Your task to perform on an android device: Is it going to rain this weekend? Image 0: 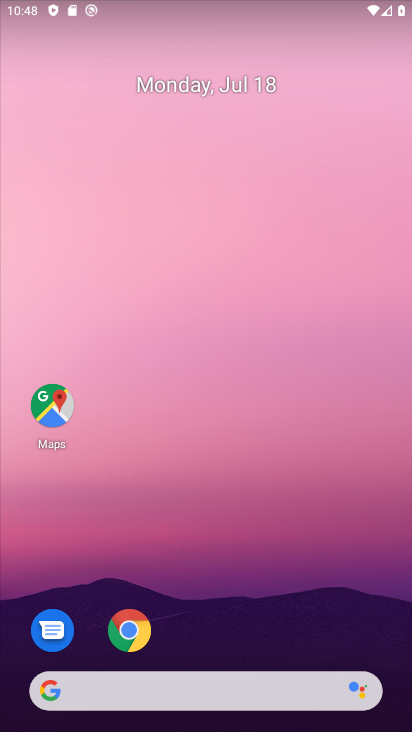
Step 0: drag from (137, 662) to (160, 304)
Your task to perform on an android device: Is it going to rain this weekend? Image 1: 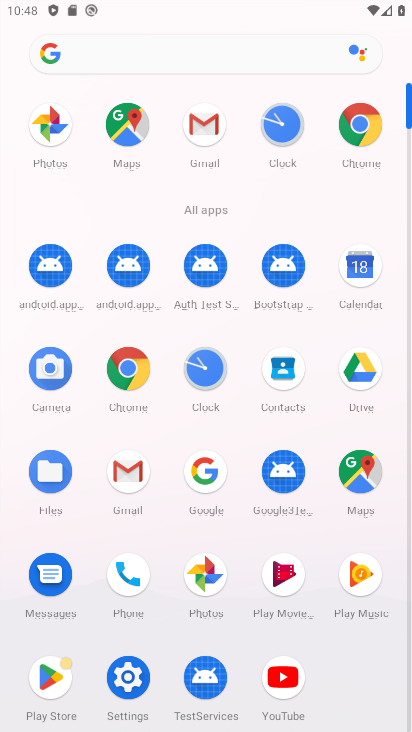
Step 1: click (207, 469)
Your task to perform on an android device: Is it going to rain this weekend? Image 2: 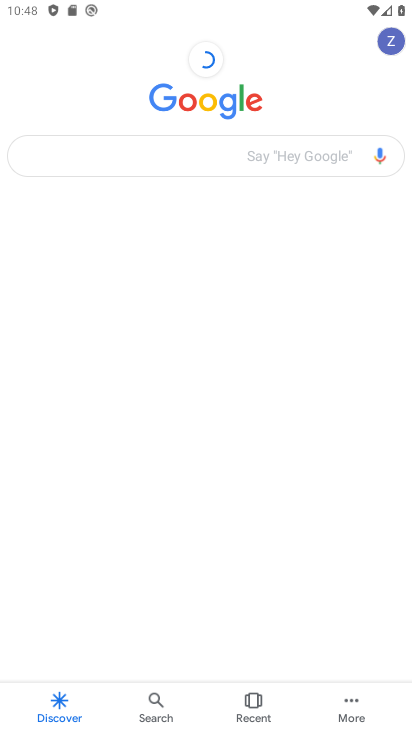
Step 2: click (127, 150)
Your task to perform on an android device: Is it going to rain this weekend? Image 3: 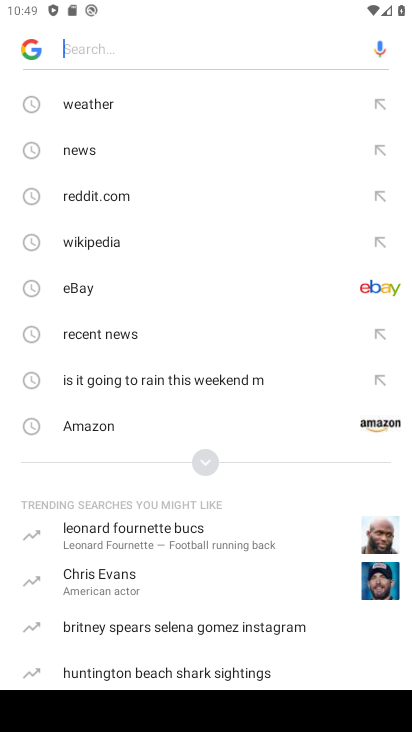
Step 3: click (201, 461)
Your task to perform on an android device: Is it going to rain this weekend? Image 4: 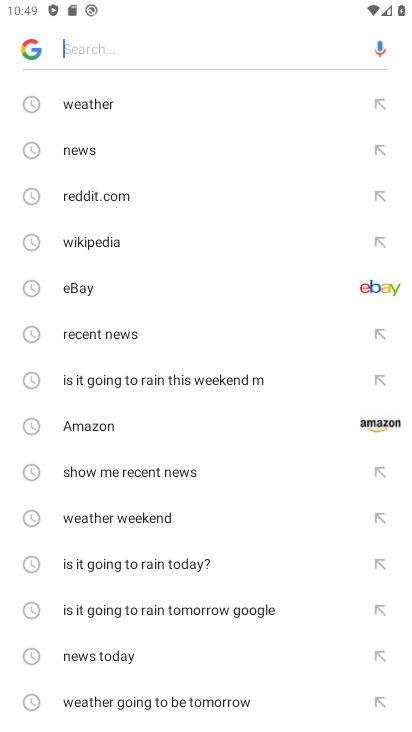
Step 4: drag from (137, 669) to (138, 391)
Your task to perform on an android device: Is it going to rain this weekend? Image 5: 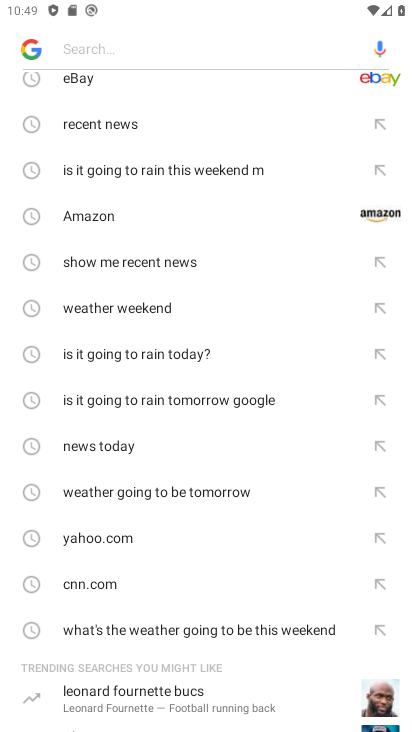
Step 5: drag from (160, 609) to (155, 290)
Your task to perform on an android device: Is it going to rain this weekend? Image 6: 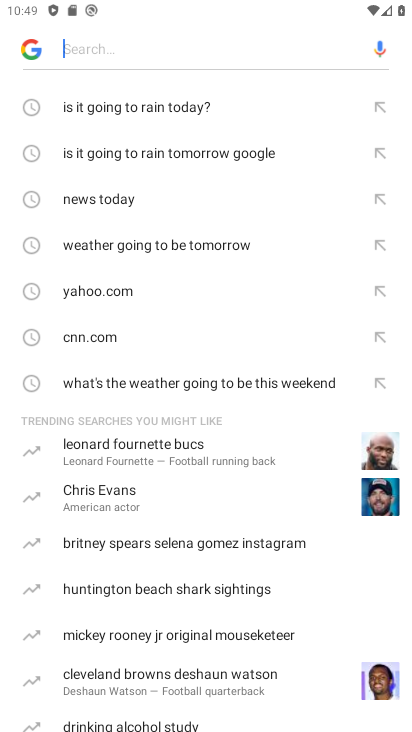
Step 6: drag from (154, 186) to (197, 488)
Your task to perform on an android device: Is it going to rain this weekend? Image 7: 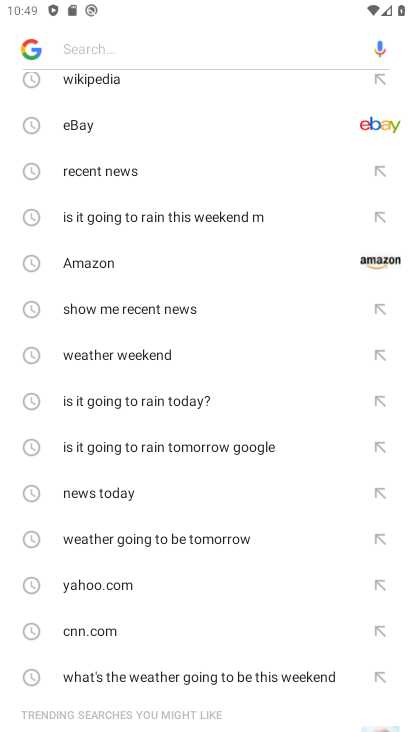
Step 7: click (129, 219)
Your task to perform on an android device: Is it going to rain this weekend? Image 8: 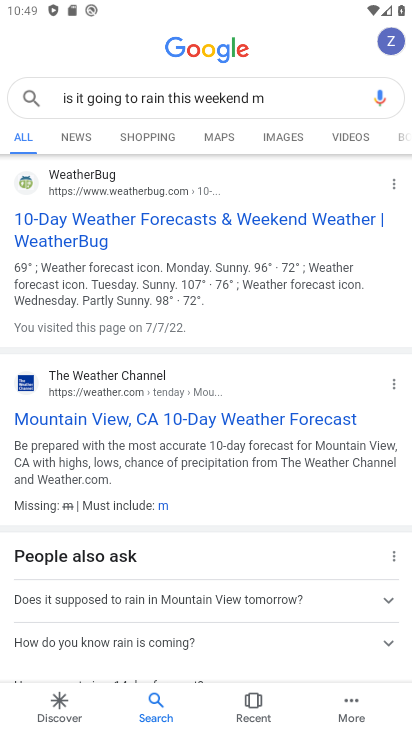
Step 8: click (145, 215)
Your task to perform on an android device: Is it going to rain this weekend? Image 9: 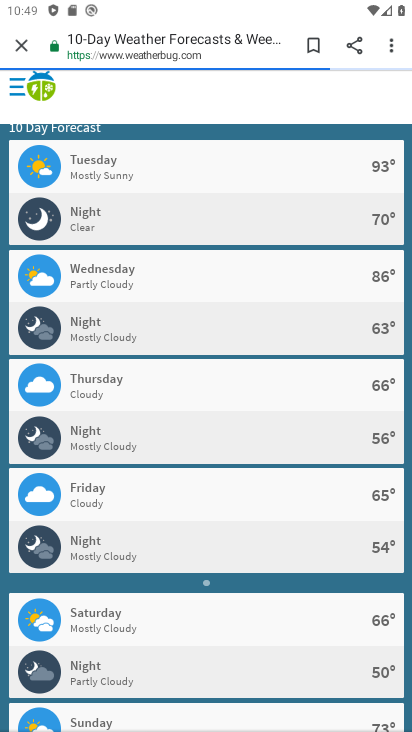
Step 9: task complete